Your task to perform on an android device: find which apps use the phone's location Image 0: 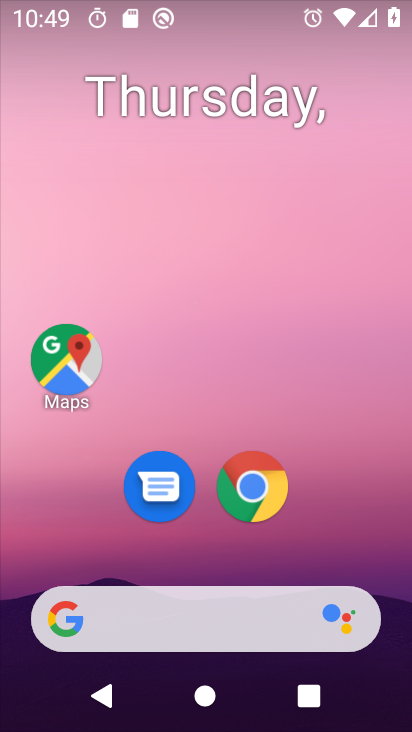
Step 0: click (394, 164)
Your task to perform on an android device: find which apps use the phone's location Image 1: 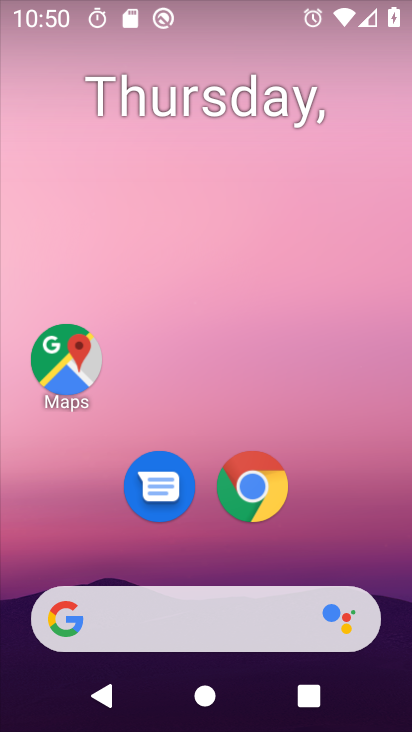
Step 1: drag from (395, 621) to (408, 175)
Your task to perform on an android device: find which apps use the phone's location Image 2: 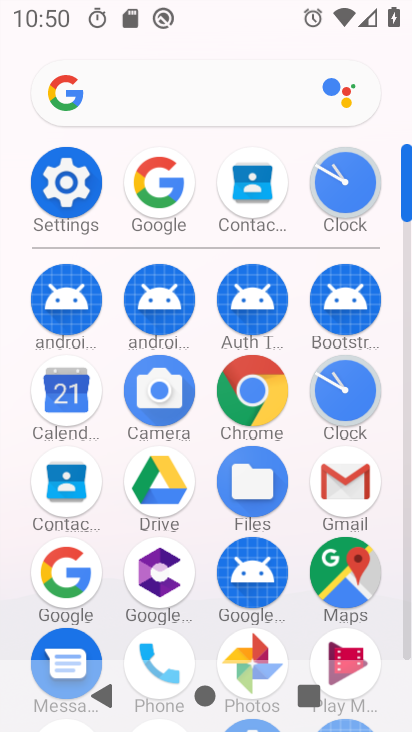
Step 2: click (58, 166)
Your task to perform on an android device: find which apps use the phone's location Image 3: 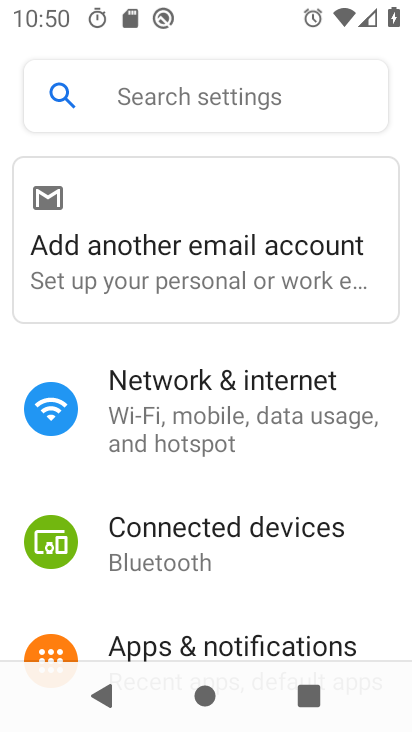
Step 3: drag from (398, 630) to (387, 326)
Your task to perform on an android device: find which apps use the phone's location Image 4: 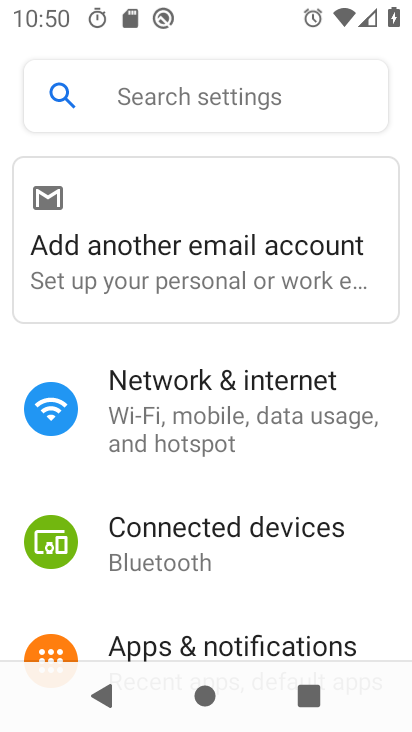
Step 4: drag from (391, 444) to (402, 305)
Your task to perform on an android device: find which apps use the phone's location Image 5: 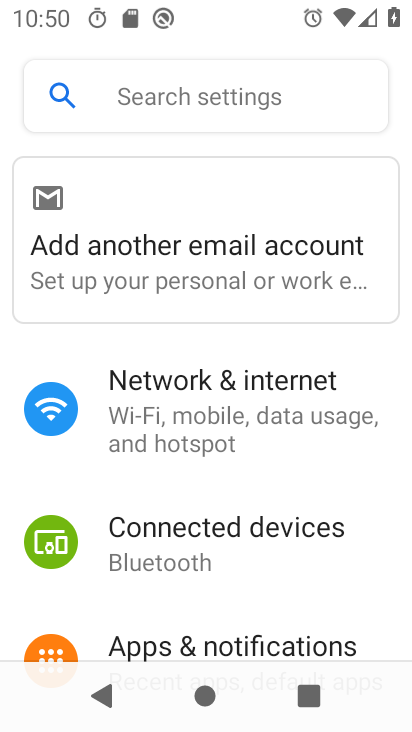
Step 5: drag from (394, 481) to (411, 122)
Your task to perform on an android device: find which apps use the phone's location Image 6: 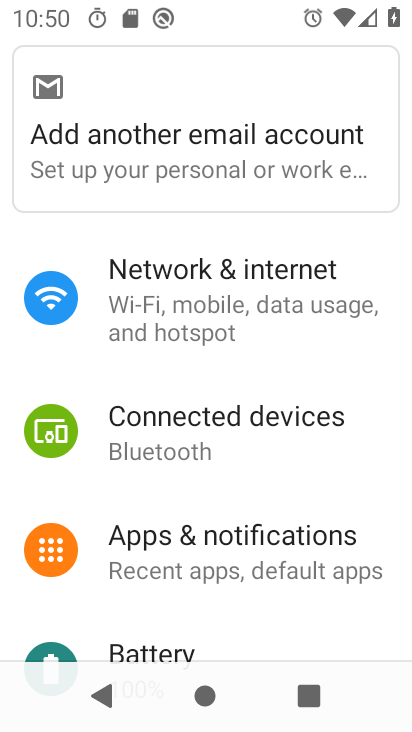
Step 6: drag from (411, 458) to (404, 204)
Your task to perform on an android device: find which apps use the phone's location Image 7: 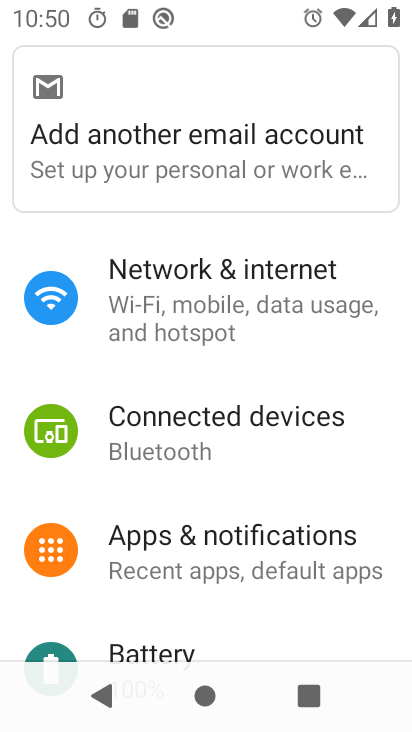
Step 7: drag from (381, 418) to (384, 215)
Your task to perform on an android device: find which apps use the phone's location Image 8: 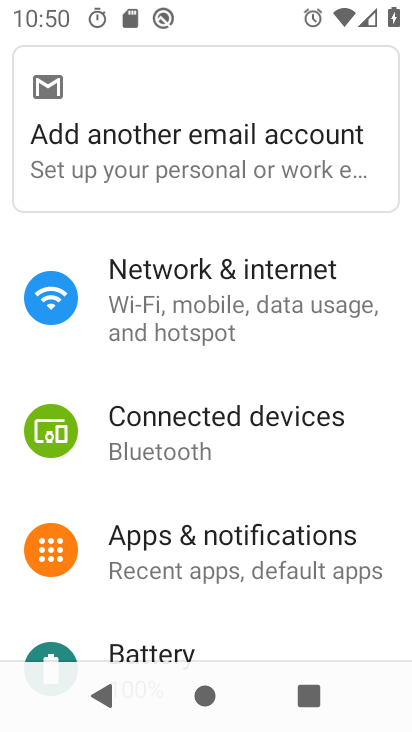
Step 8: drag from (365, 185) to (359, 136)
Your task to perform on an android device: find which apps use the phone's location Image 9: 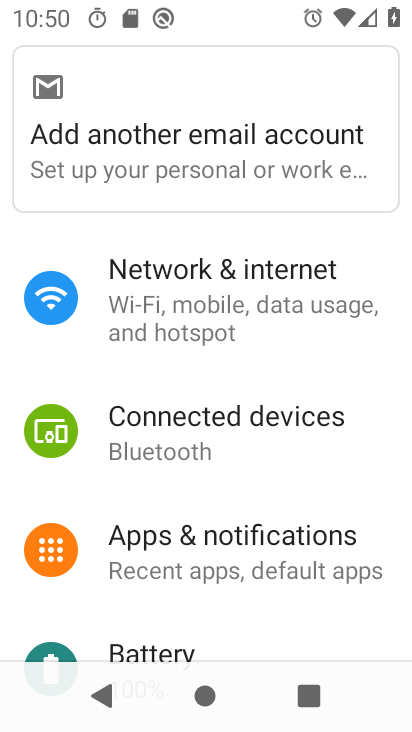
Step 9: drag from (365, 493) to (378, 213)
Your task to perform on an android device: find which apps use the phone's location Image 10: 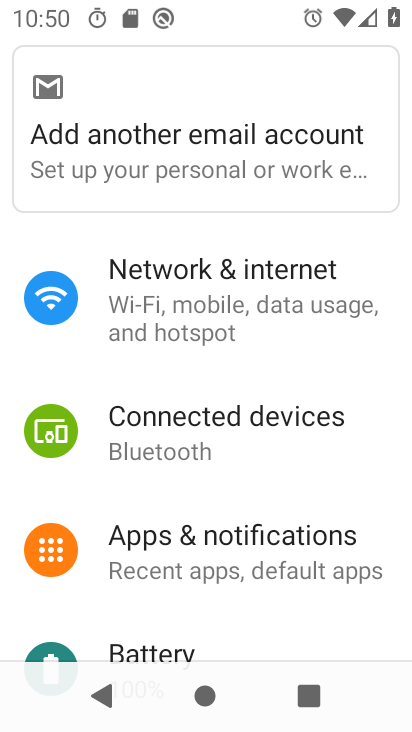
Step 10: drag from (353, 611) to (388, 255)
Your task to perform on an android device: find which apps use the phone's location Image 11: 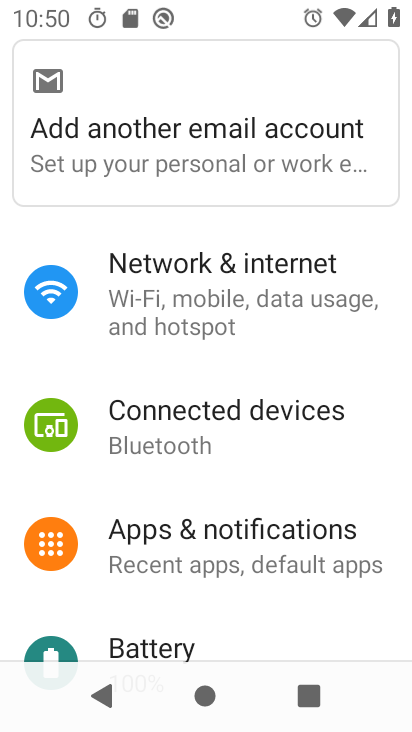
Step 11: drag from (411, 358) to (411, 200)
Your task to perform on an android device: find which apps use the phone's location Image 12: 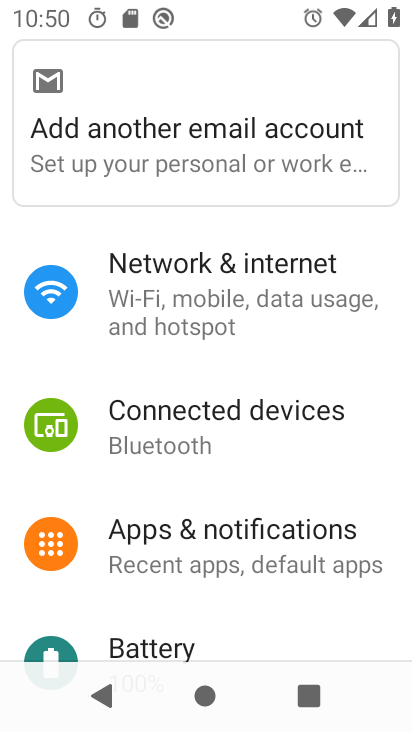
Step 12: drag from (341, 626) to (365, 274)
Your task to perform on an android device: find which apps use the phone's location Image 13: 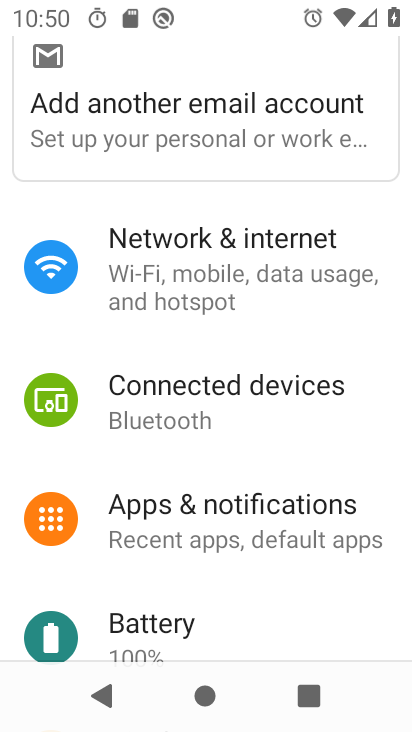
Step 13: drag from (288, 617) to (295, 362)
Your task to perform on an android device: find which apps use the phone's location Image 14: 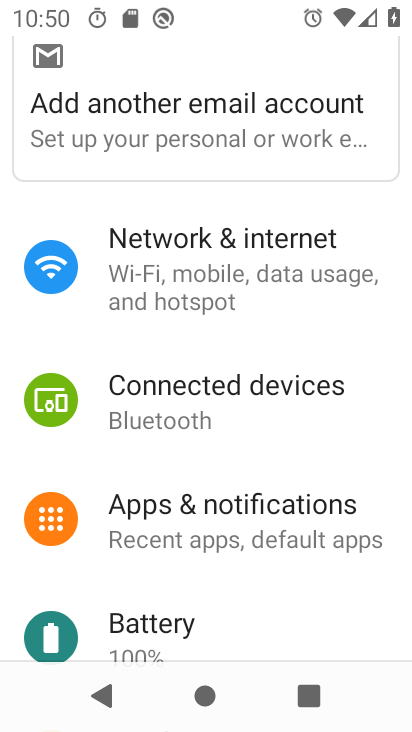
Step 14: drag from (338, 610) to (394, 325)
Your task to perform on an android device: find which apps use the phone's location Image 15: 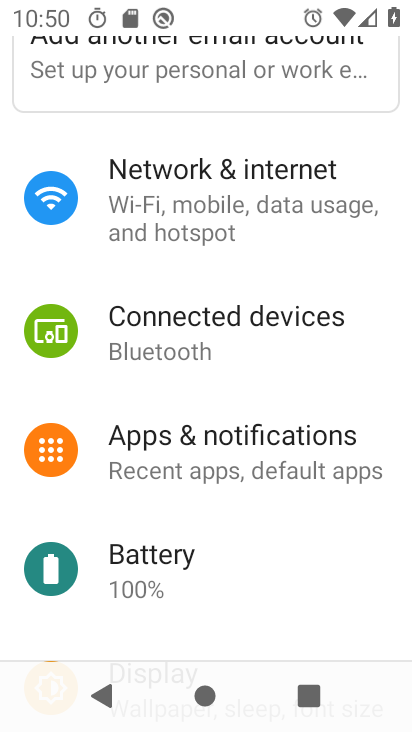
Step 15: drag from (349, 630) to (340, 204)
Your task to perform on an android device: find which apps use the phone's location Image 16: 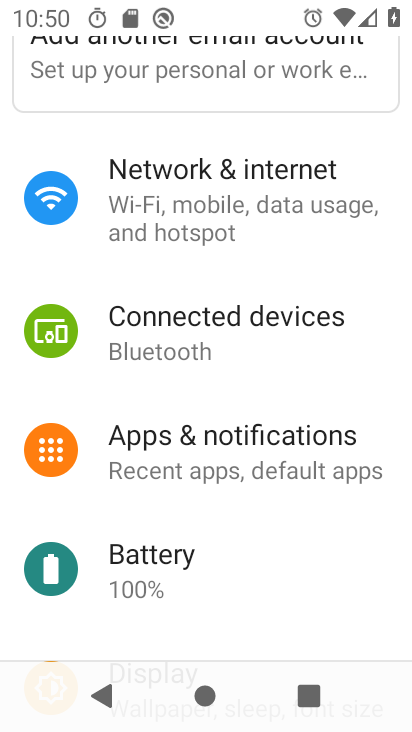
Step 16: drag from (350, 475) to (377, 149)
Your task to perform on an android device: find which apps use the phone's location Image 17: 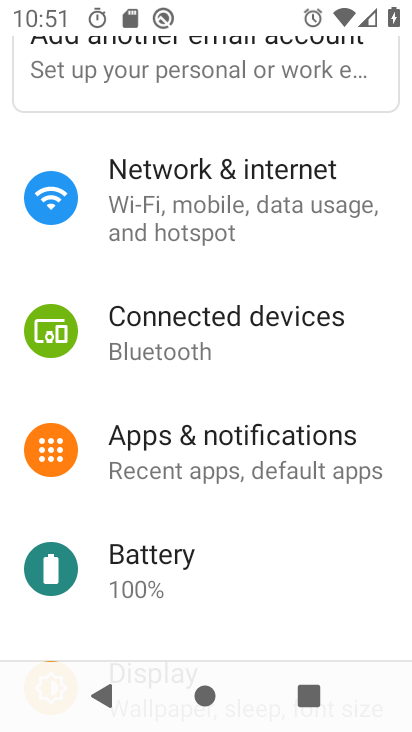
Step 17: drag from (341, 416) to (345, 205)
Your task to perform on an android device: find which apps use the phone's location Image 18: 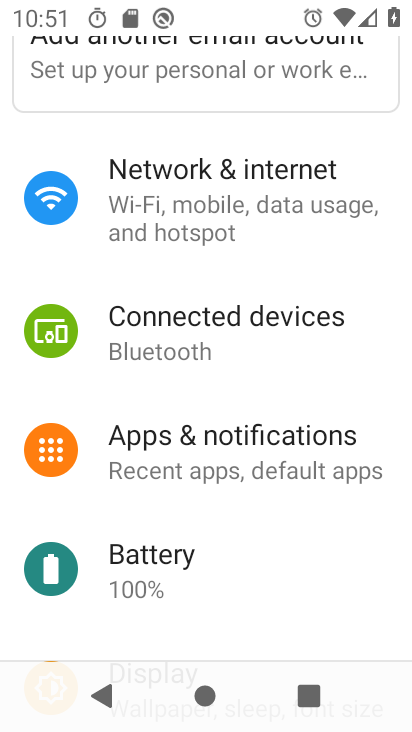
Step 18: drag from (340, 583) to (362, 214)
Your task to perform on an android device: find which apps use the phone's location Image 19: 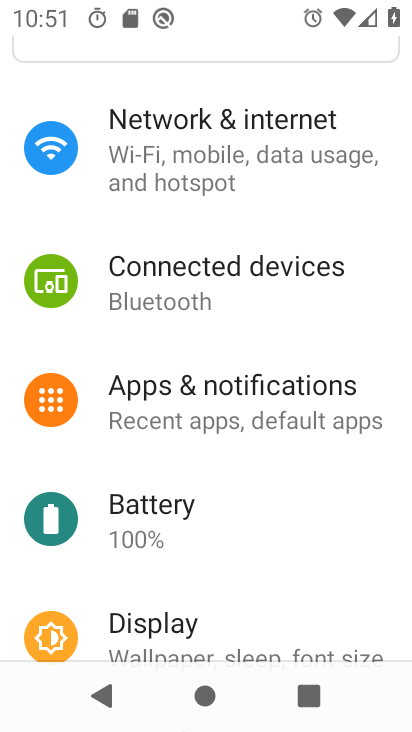
Step 19: drag from (355, 535) to (375, 185)
Your task to perform on an android device: find which apps use the phone's location Image 20: 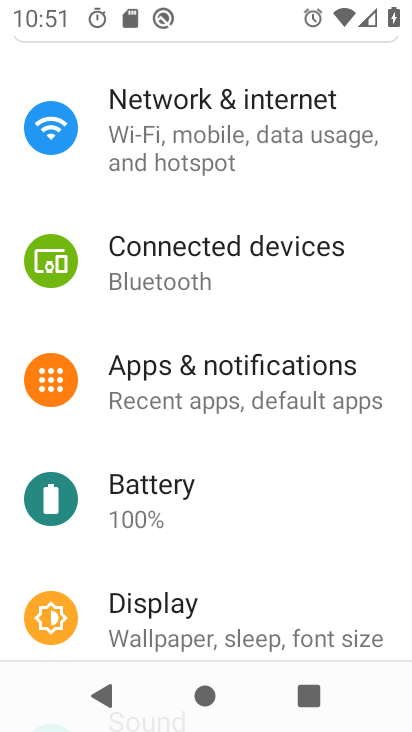
Step 20: drag from (357, 469) to (367, 260)
Your task to perform on an android device: find which apps use the phone's location Image 21: 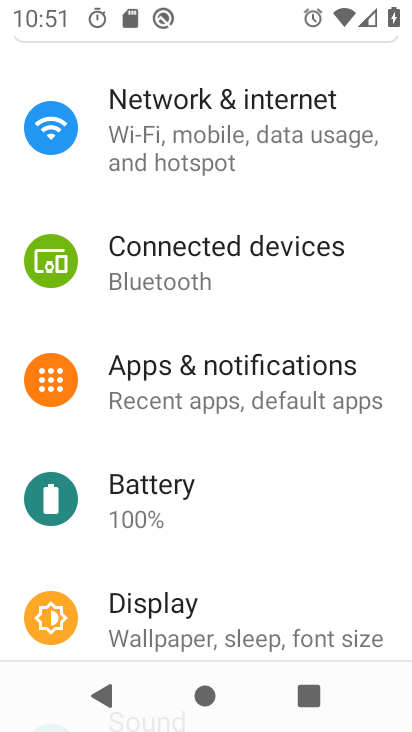
Step 21: drag from (350, 600) to (401, 113)
Your task to perform on an android device: find which apps use the phone's location Image 22: 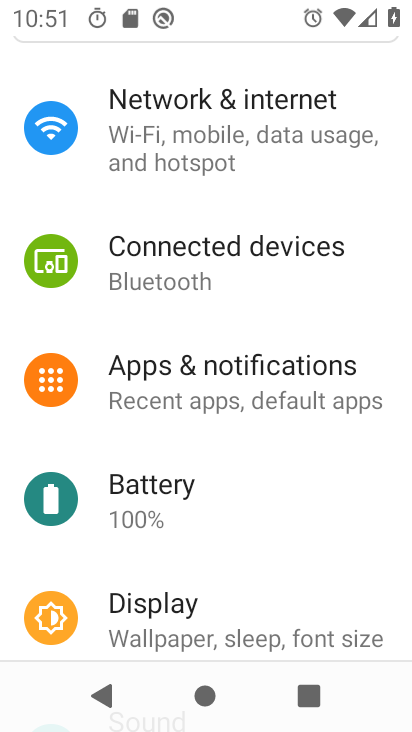
Step 22: drag from (360, 457) to (384, 85)
Your task to perform on an android device: find which apps use the phone's location Image 23: 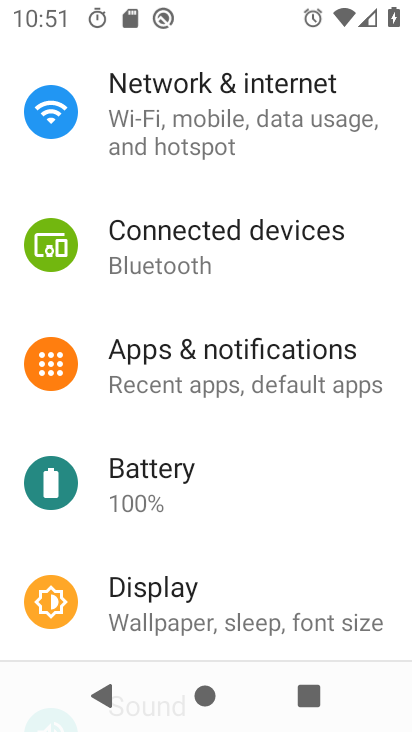
Step 23: drag from (302, 625) to (326, 232)
Your task to perform on an android device: find which apps use the phone's location Image 24: 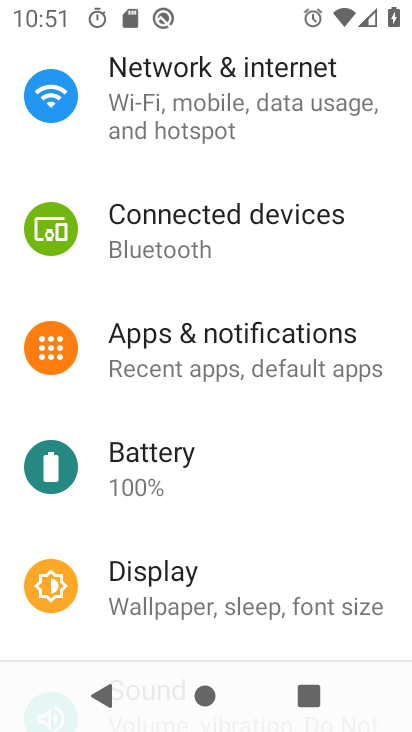
Step 24: drag from (338, 625) to (382, 177)
Your task to perform on an android device: find which apps use the phone's location Image 25: 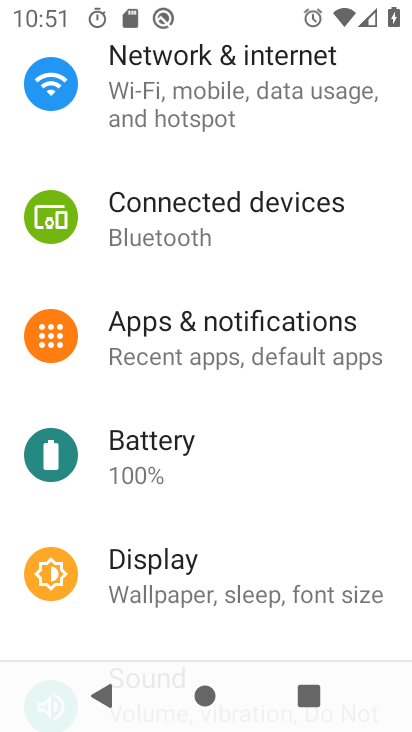
Step 25: drag from (347, 563) to (343, 249)
Your task to perform on an android device: find which apps use the phone's location Image 26: 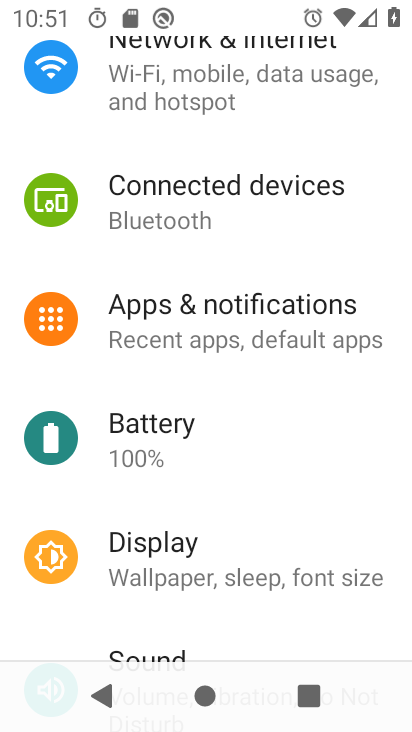
Step 26: drag from (355, 563) to (410, 167)
Your task to perform on an android device: find which apps use the phone's location Image 27: 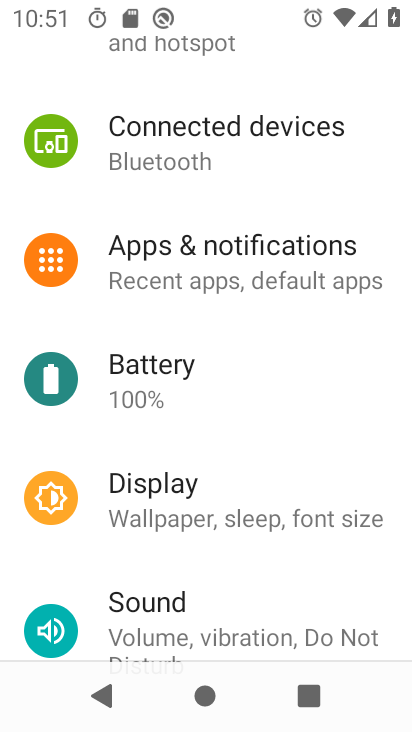
Step 27: drag from (367, 381) to (376, 185)
Your task to perform on an android device: find which apps use the phone's location Image 28: 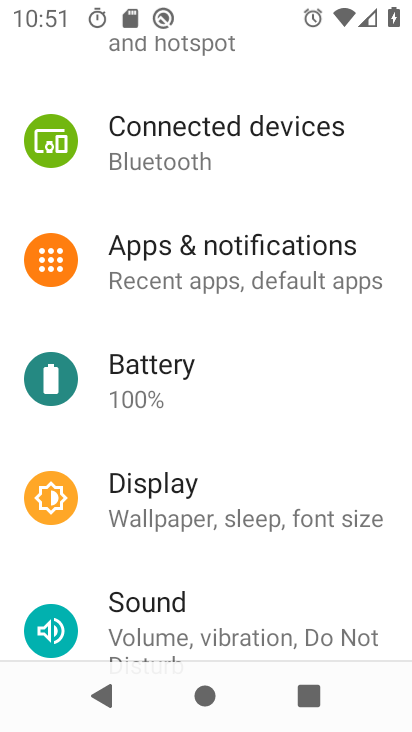
Step 28: drag from (343, 631) to (363, 273)
Your task to perform on an android device: find which apps use the phone's location Image 29: 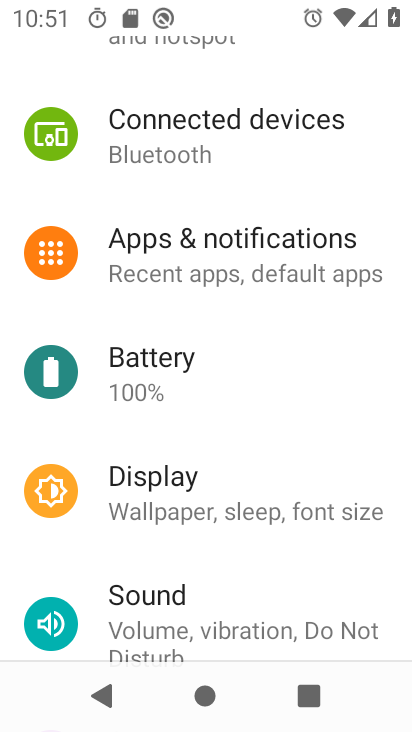
Step 29: drag from (375, 614) to (406, 205)
Your task to perform on an android device: find which apps use the phone's location Image 30: 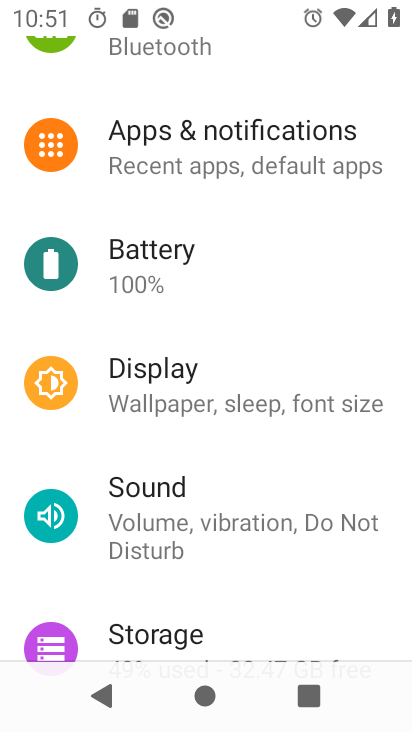
Step 30: drag from (332, 220) to (335, 145)
Your task to perform on an android device: find which apps use the phone's location Image 31: 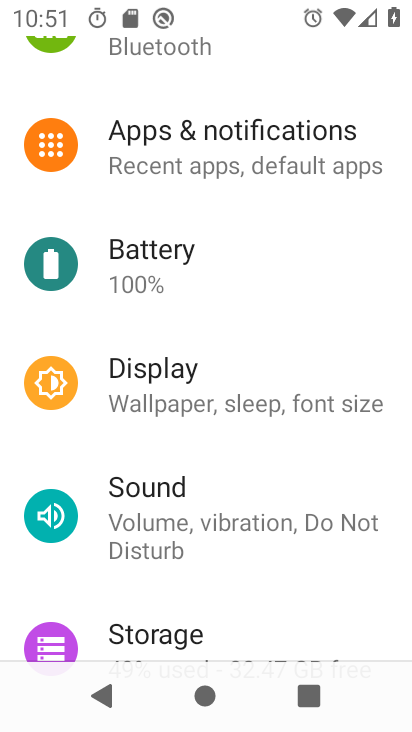
Step 31: drag from (339, 588) to (381, 178)
Your task to perform on an android device: find which apps use the phone's location Image 32: 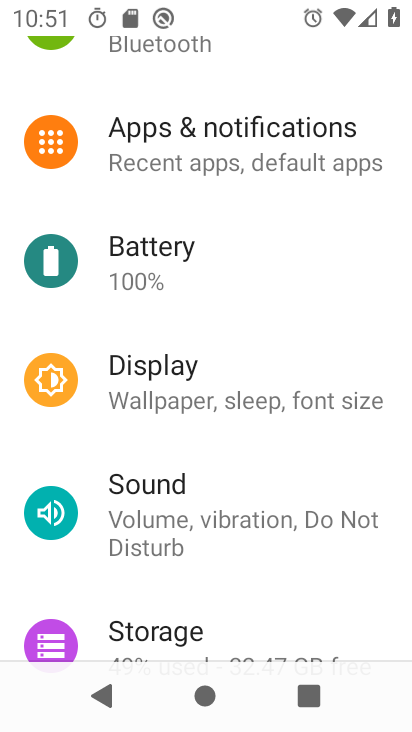
Step 32: drag from (323, 596) to (333, 259)
Your task to perform on an android device: find which apps use the phone's location Image 33: 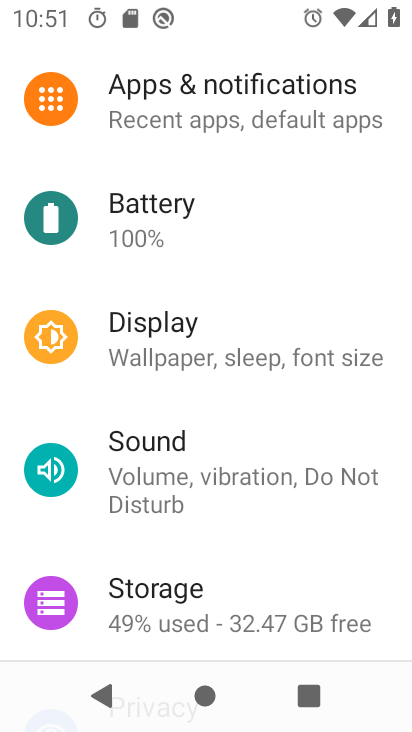
Step 33: drag from (329, 368) to (338, 204)
Your task to perform on an android device: find which apps use the phone's location Image 34: 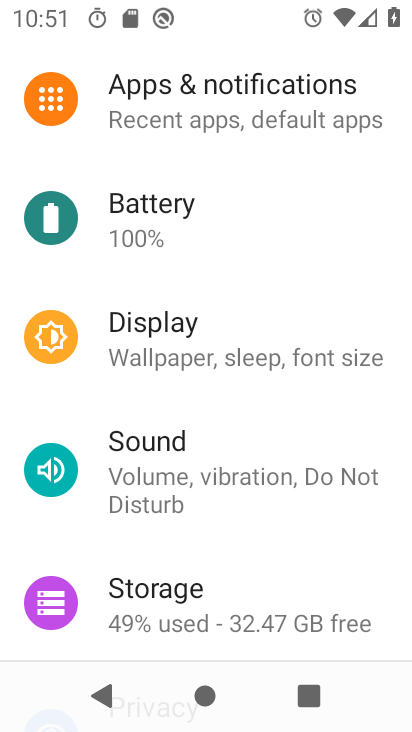
Step 34: drag from (359, 610) to (396, 414)
Your task to perform on an android device: find which apps use the phone's location Image 35: 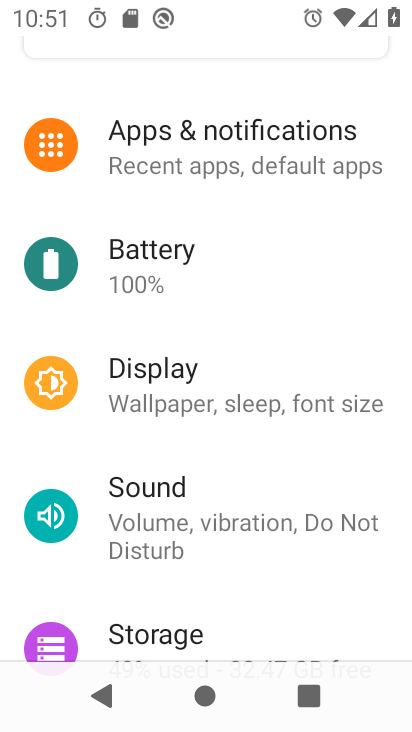
Step 35: drag from (372, 607) to (382, 269)
Your task to perform on an android device: find which apps use the phone's location Image 36: 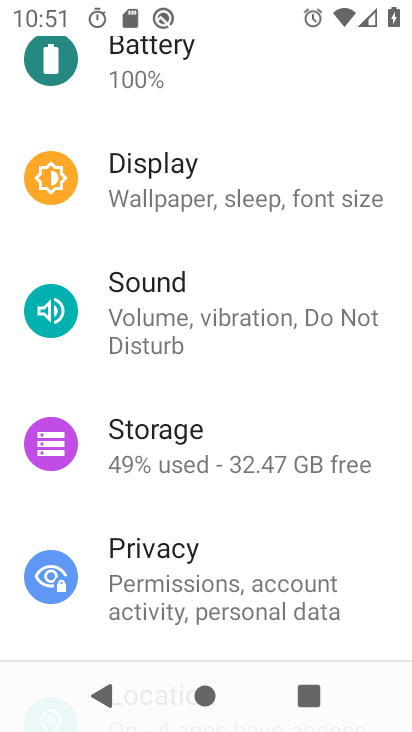
Step 36: drag from (361, 432) to (361, 176)
Your task to perform on an android device: find which apps use the phone's location Image 37: 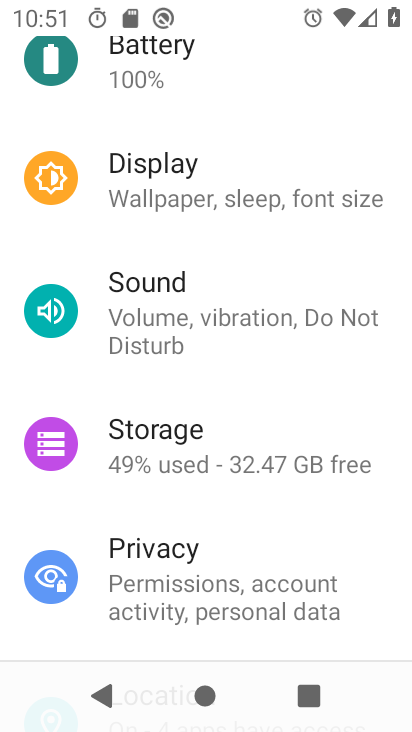
Step 37: drag from (374, 363) to (401, 136)
Your task to perform on an android device: find which apps use the phone's location Image 38: 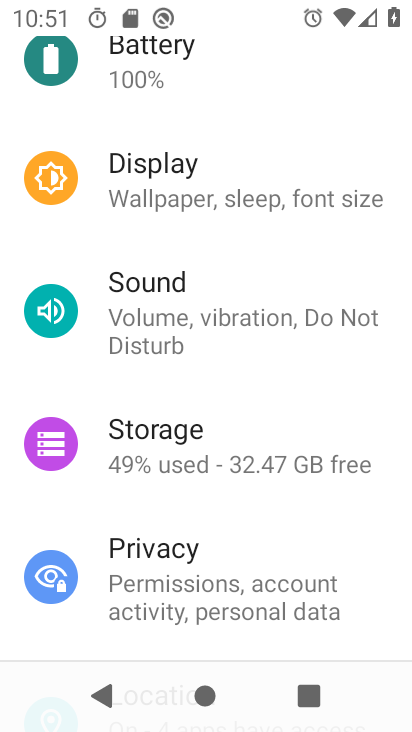
Step 38: drag from (361, 347) to (360, 164)
Your task to perform on an android device: find which apps use the phone's location Image 39: 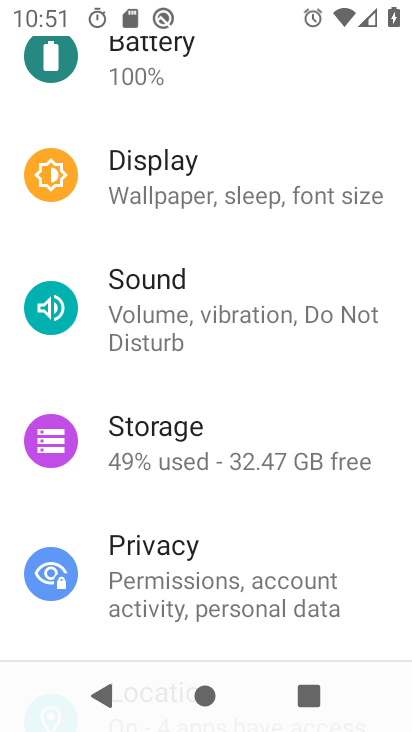
Step 39: drag from (381, 442) to (408, 210)
Your task to perform on an android device: find which apps use the phone's location Image 40: 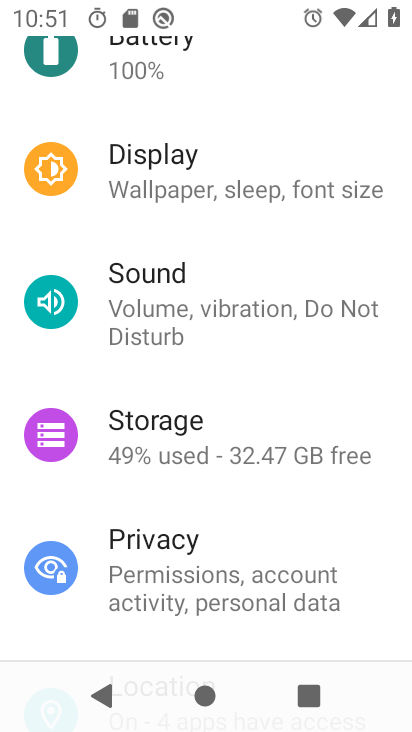
Step 40: drag from (334, 646) to (333, 264)
Your task to perform on an android device: find which apps use the phone's location Image 41: 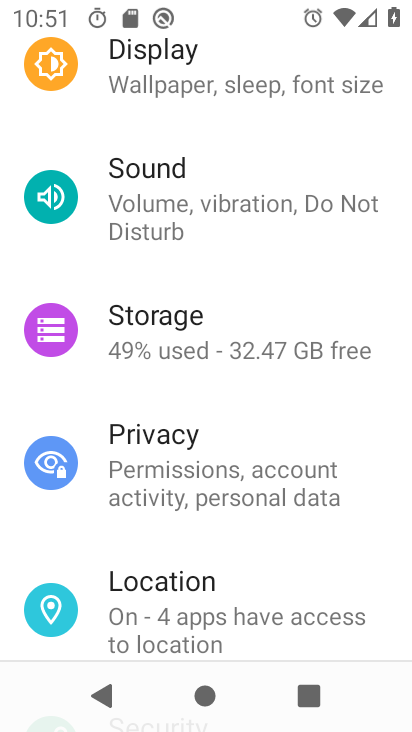
Step 41: click (141, 576)
Your task to perform on an android device: find which apps use the phone's location Image 42: 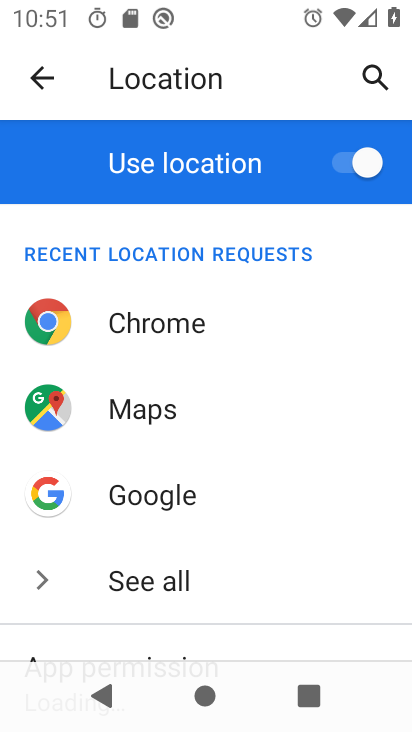
Step 42: drag from (283, 338) to (283, 230)
Your task to perform on an android device: find which apps use the phone's location Image 43: 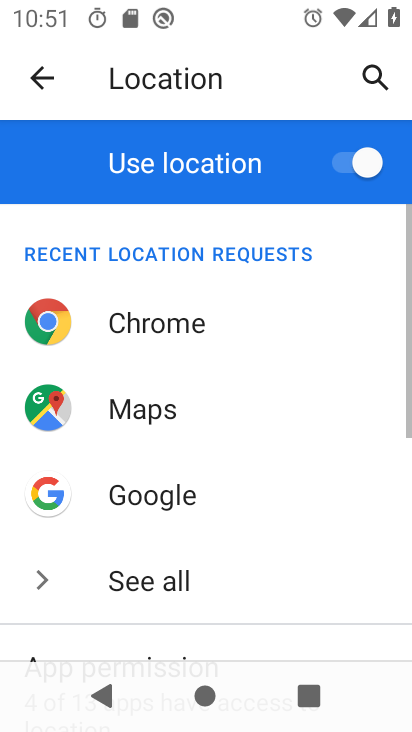
Step 43: drag from (282, 610) to (286, 199)
Your task to perform on an android device: find which apps use the phone's location Image 44: 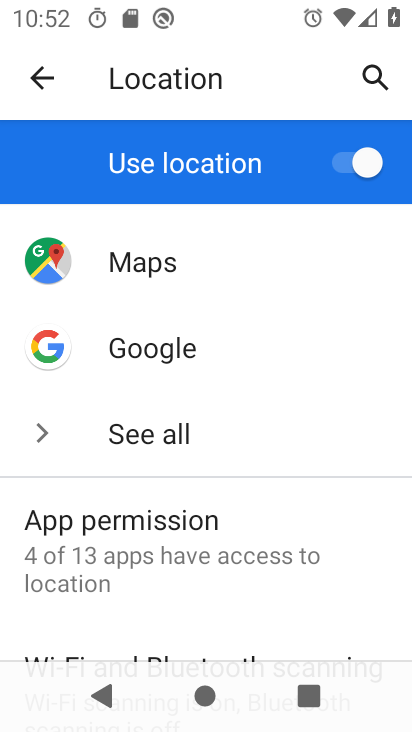
Step 44: click (81, 537)
Your task to perform on an android device: find which apps use the phone's location Image 45: 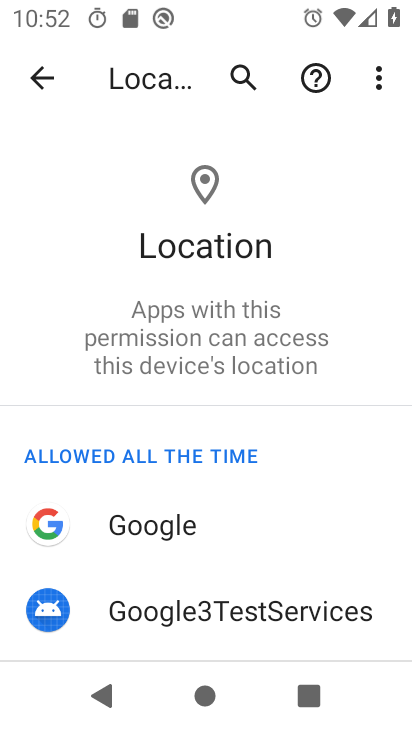
Step 45: task complete